Your task to perform on an android device: delete the emails in spam in the gmail app Image 0: 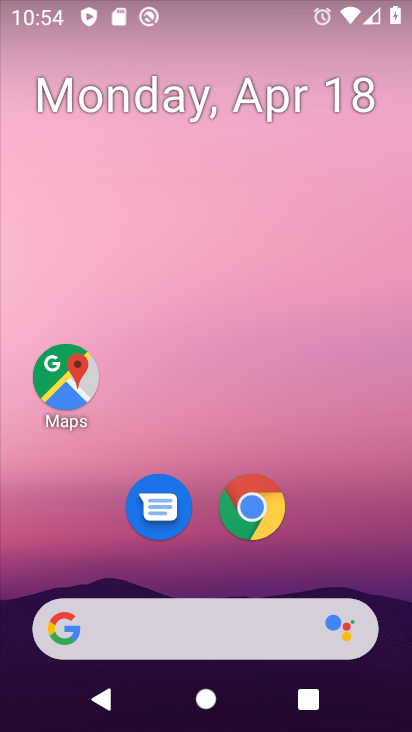
Step 0: click (325, 327)
Your task to perform on an android device: delete the emails in spam in the gmail app Image 1: 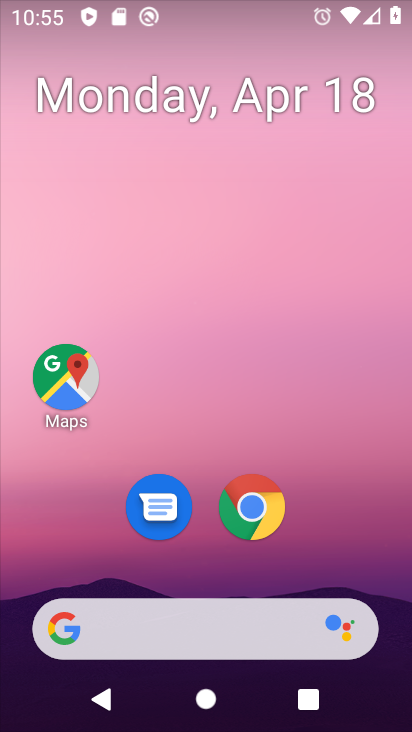
Step 1: drag from (262, 669) to (244, 109)
Your task to perform on an android device: delete the emails in spam in the gmail app Image 2: 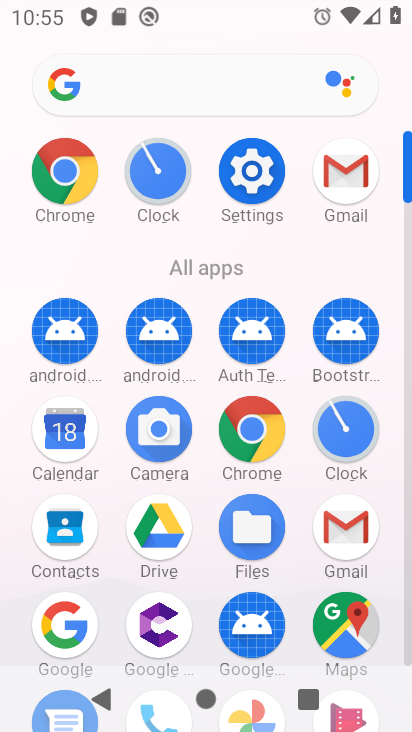
Step 2: click (352, 528)
Your task to perform on an android device: delete the emails in spam in the gmail app Image 3: 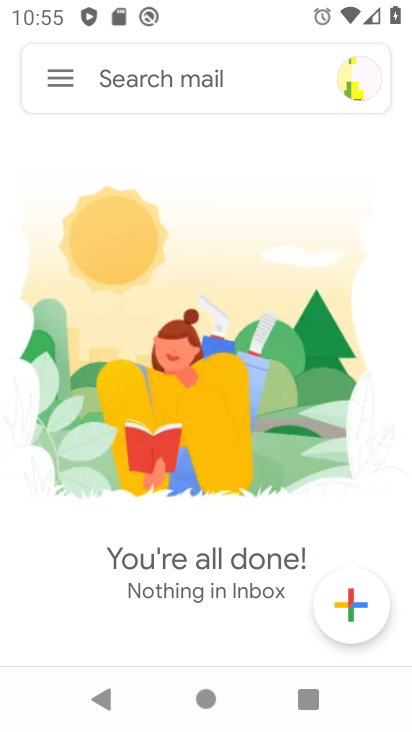
Step 3: click (64, 83)
Your task to perform on an android device: delete the emails in spam in the gmail app Image 4: 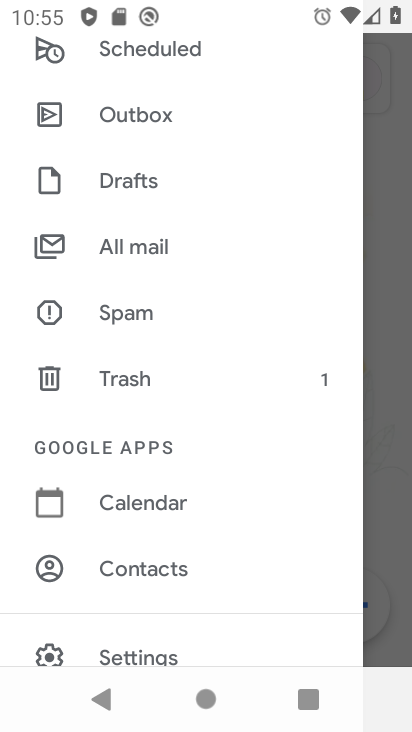
Step 4: click (141, 313)
Your task to perform on an android device: delete the emails in spam in the gmail app Image 5: 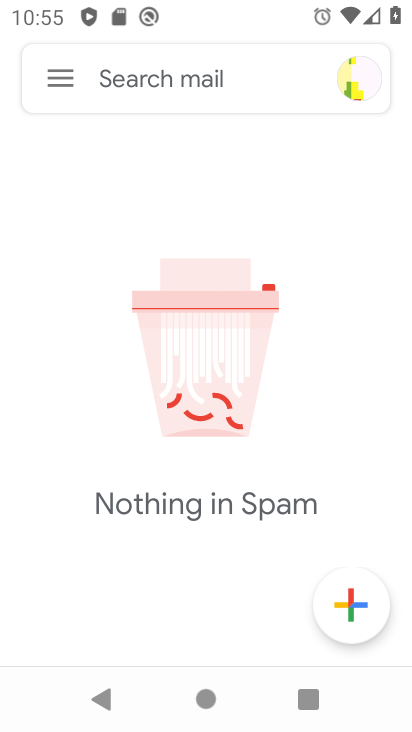
Step 5: click (48, 81)
Your task to perform on an android device: delete the emails in spam in the gmail app Image 6: 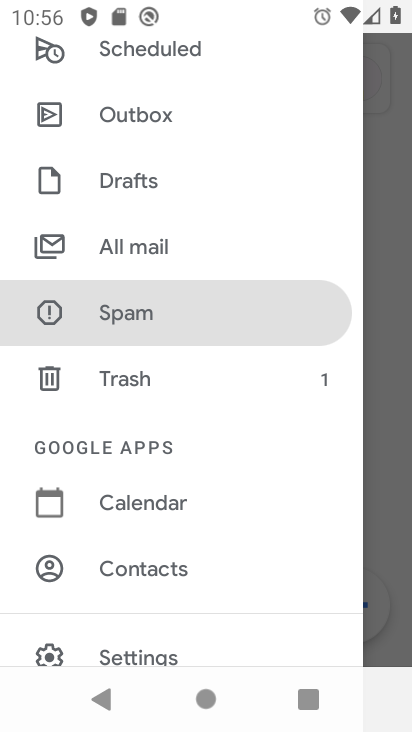
Step 6: click (152, 334)
Your task to perform on an android device: delete the emails in spam in the gmail app Image 7: 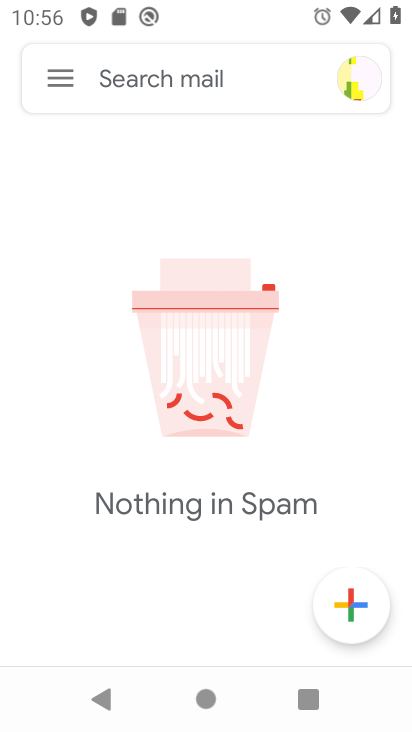
Step 7: task complete